Your task to perform on an android device: Open Android settings Image 0: 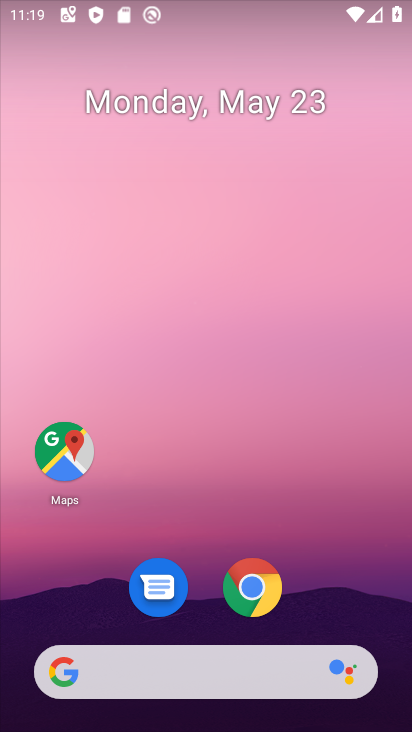
Step 0: drag from (390, 622) to (261, 87)
Your task to perform on an android device: Open Android settings Image 1: 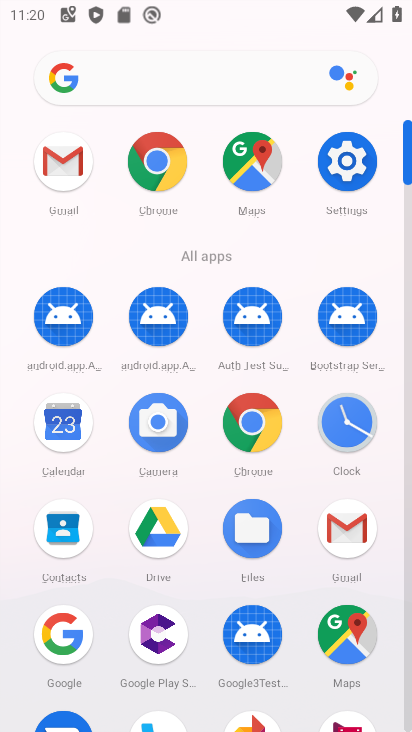
Step 1: click (349, 173)
Your task to perform on an android device: Open Android settings Image 2: 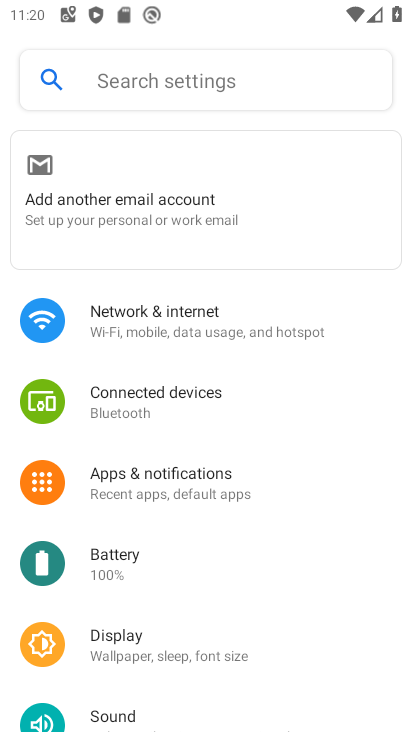
Step 2: task complete